Your task to perform on an android device: What's on my calendar today? Image 0: 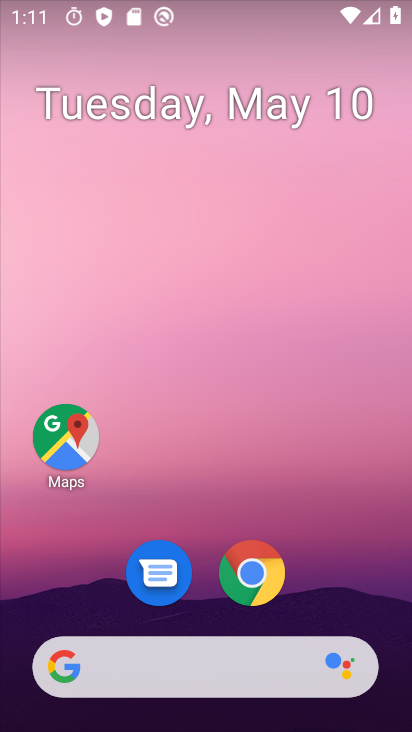
Step 0: drag from (344, 527) to (312, 57)
Your task to perform on an android device: What's on my calendar today? Image 1: 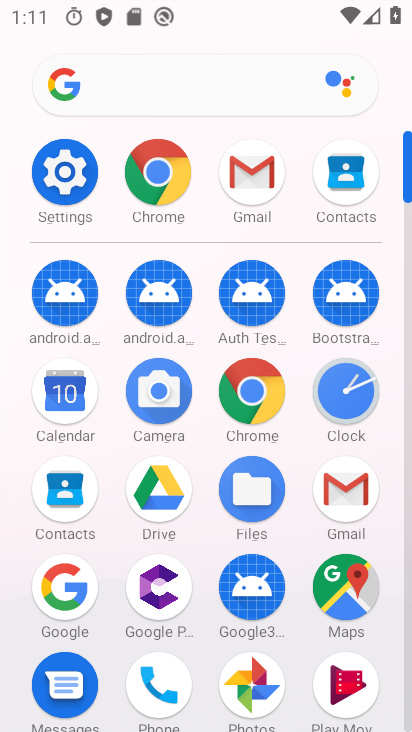
Step 1: click (63, 409)
Your task to perform on an android device: What's on my calendar today? Image 2: 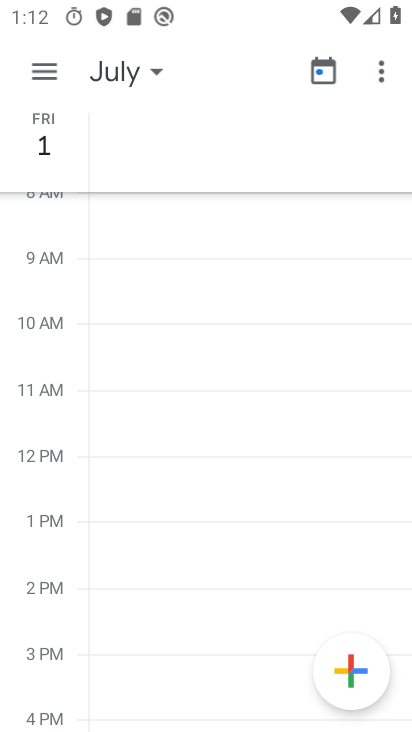
Step 2: click (157, 77)
Your task to perform on an android device: What's on my calendar today? Image 3: 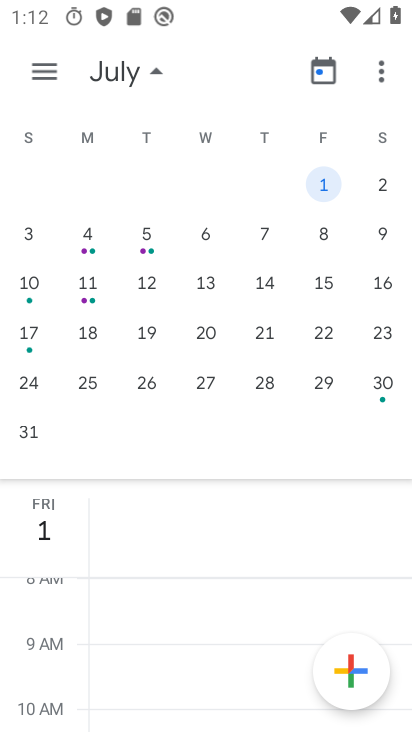
Step 3: task complete